Your task to perform on an android device: Open Wikipedia Image 0: 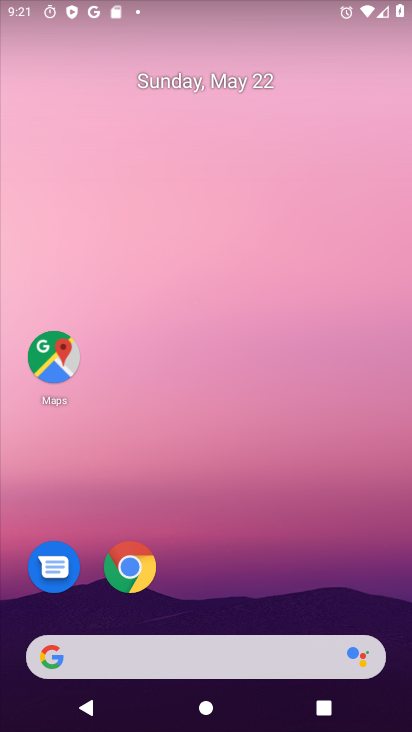
Step 0: click (130, 559)
Your task to perform on an android device: Open Wikipedia Image 1: 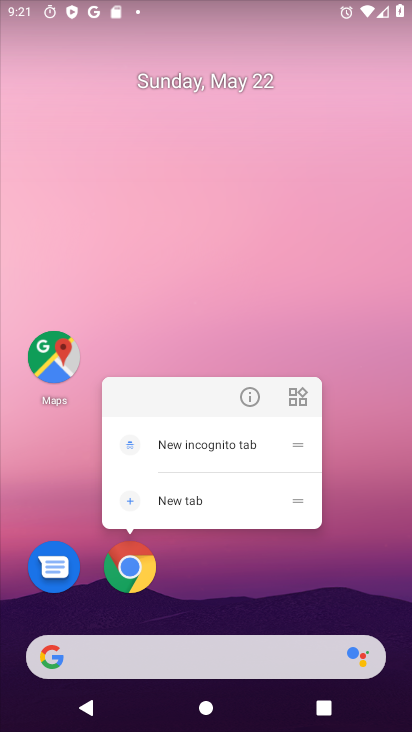
Step 1: click (130, 557)
Your task to perform on an android device: Open Wikipedia Image 2: 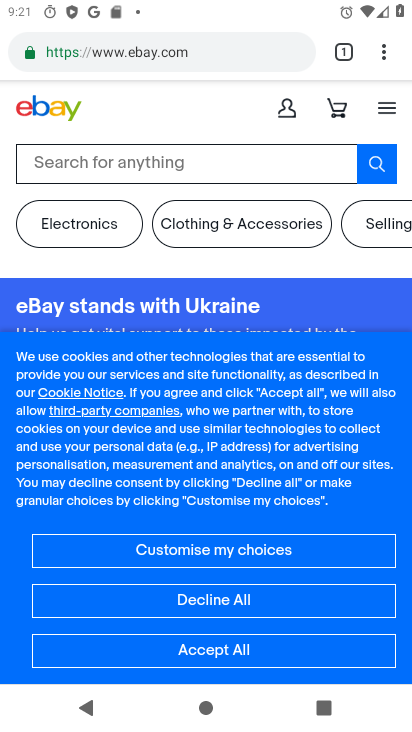
Step 2: click (177, 53)
Your task to perform on an android device: Open Wikipedia Image 3: 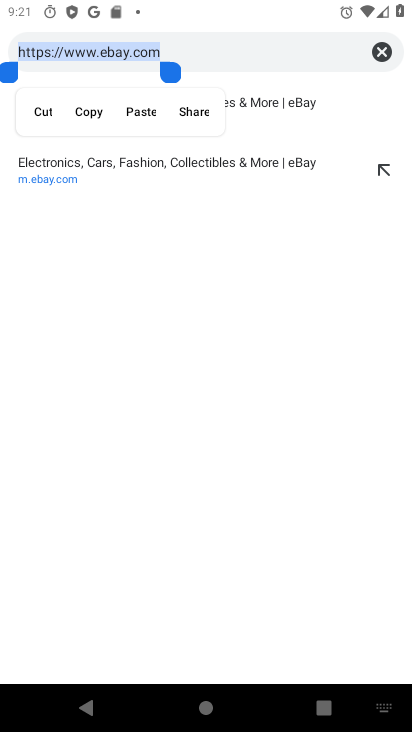
Step 3: type "wikipedia"
Your task to perform on an android device: Open Wikipedia Image 4: 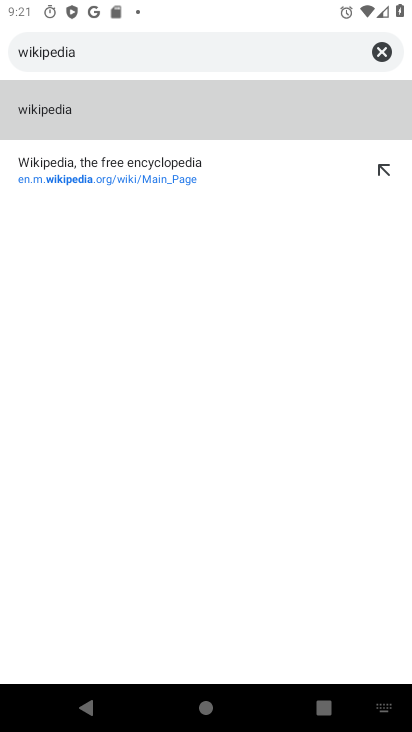
Step 4: click (105, 115)
Your task to perform on an android device: Open Wikipedia Image 5: 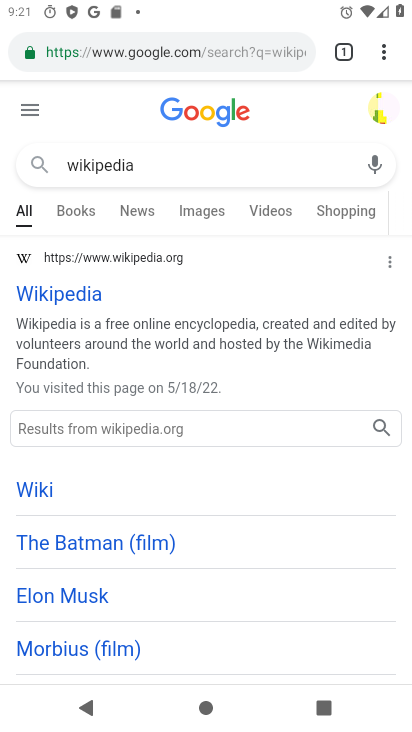
Step 5: task complete